Your task to perform on an android device: Search for pizza restaurants on Maps Image 0: 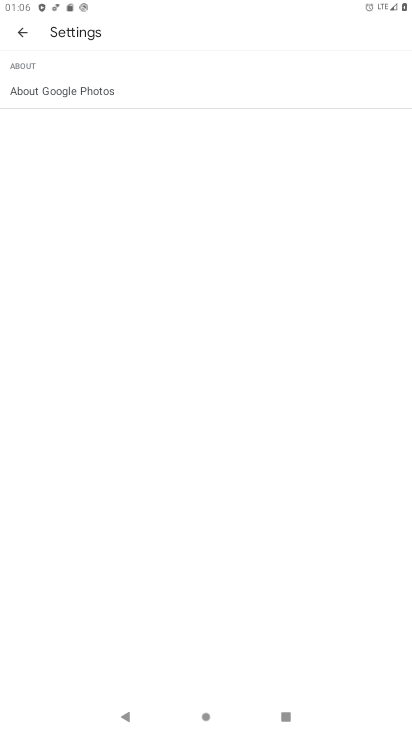
Step 0: press home button
Your task to perform on an android device: Search for pizza restaurants on Maps Image 1: 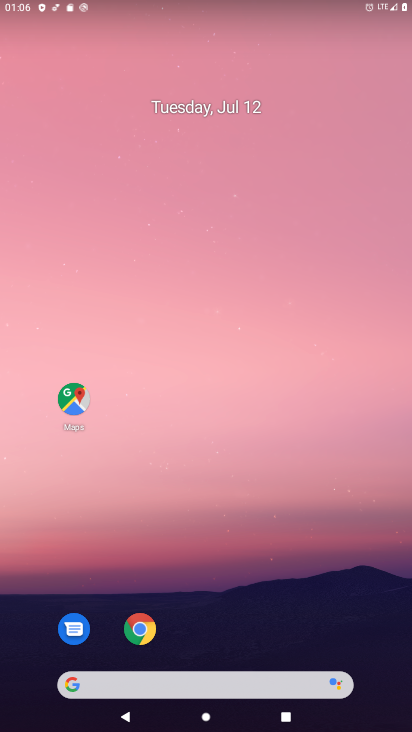
Step 1: click (66, 403)
Your task to perform on an android device: Search for pizza restaurants on Maps Image 2: 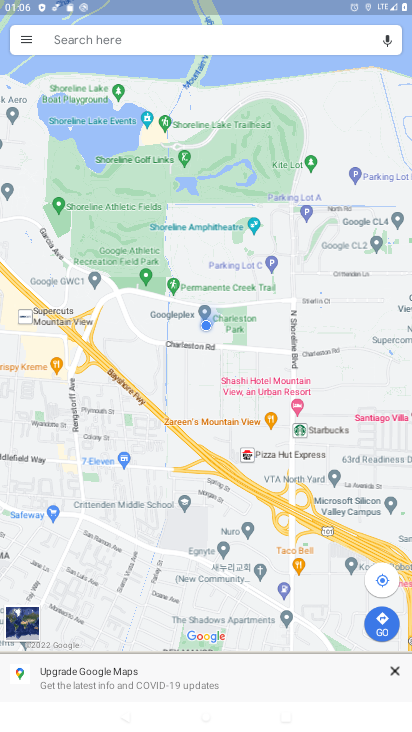
Step 2: click (68, 39)
Your task to perform on an android device: Search for pizza restaurants on Maps Image 3: 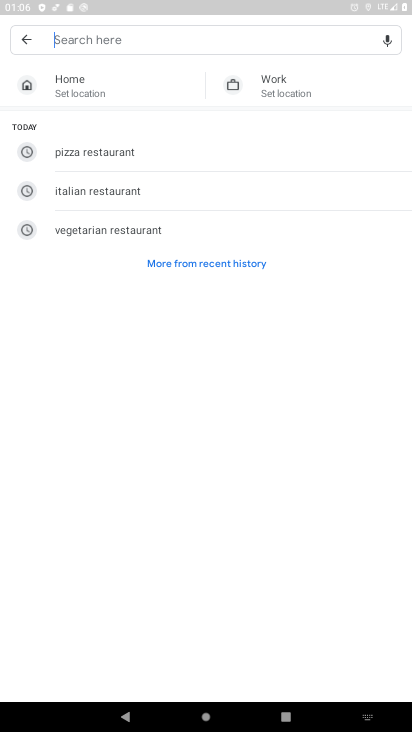
Step 3: type "pizza restaurants"
Your task to perform on an android device: Search for pizza restaurants on Maps Image 4: 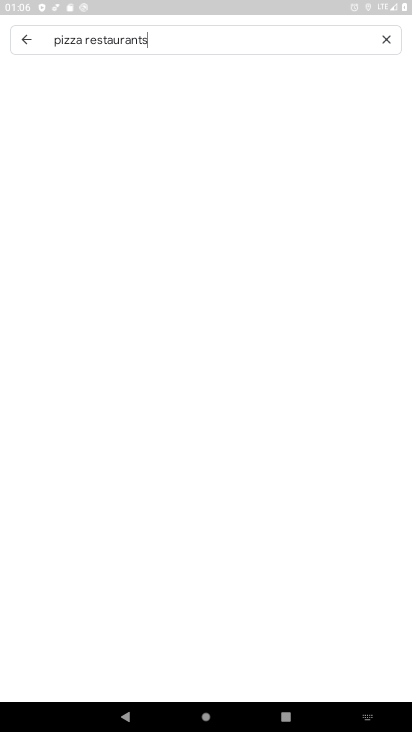
Step 4: type ""
Your task to perform on an android device: Search for pizza restaurants on Maps Image 5: 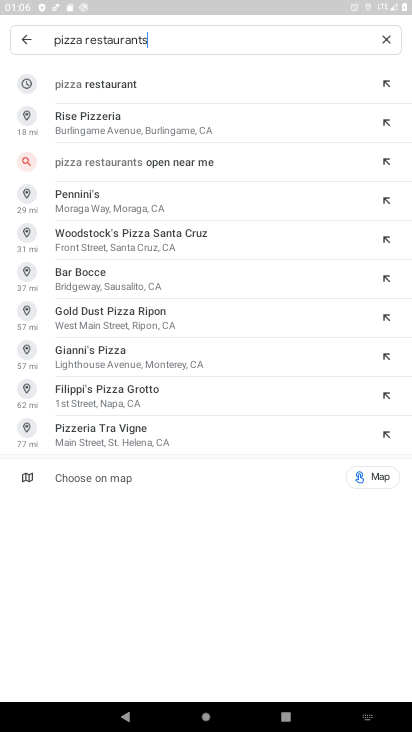
Step 5: click (143, 80)
Your task to perform on an android device: Search for pizza restaurants on Maps Image 6: 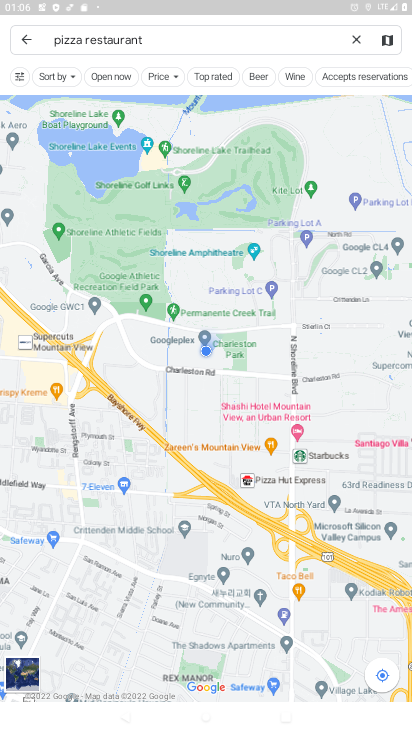
Step 6: task complete